Your task to perform on an android device: find photos in the google photos app Image 0: 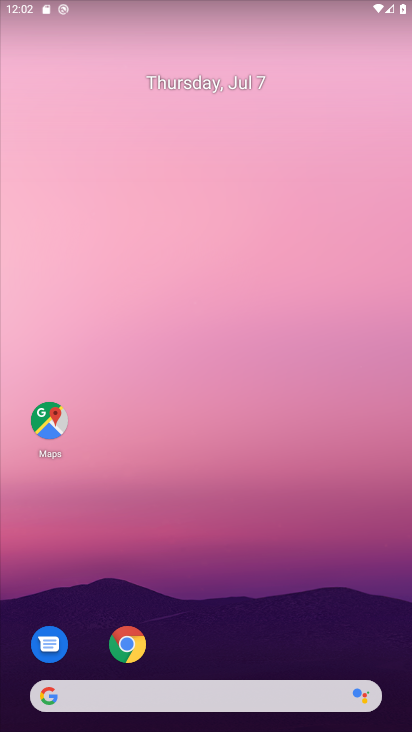
Step 0: drag from (218, 626) to (237, 170)
Your task to perform on an android device: find photos in the google photos app Image 1: 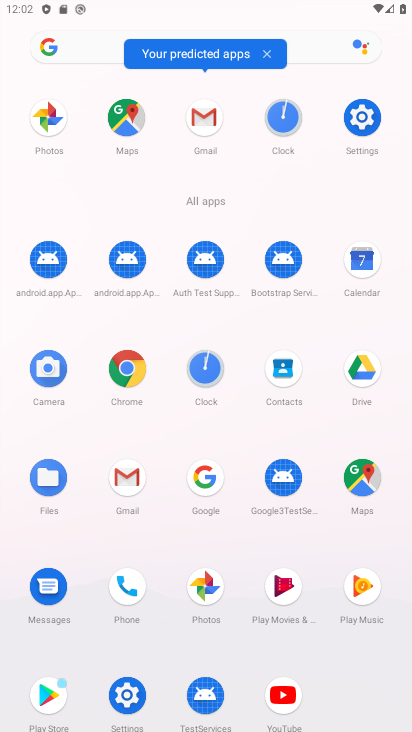
Step 1: drag from (56, 121) to (252, 218)
Your task to perform on an android device: find photos in the google photos app Image 2: 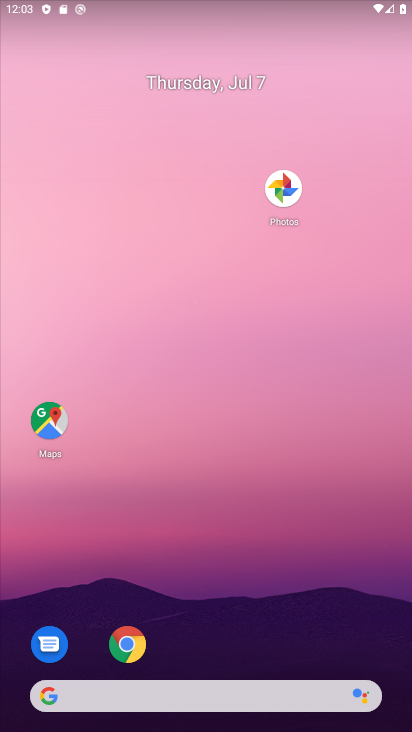
Step 2: click (289, 182)
Your task to perform on an android device: find photos in the google photos app Image 3: 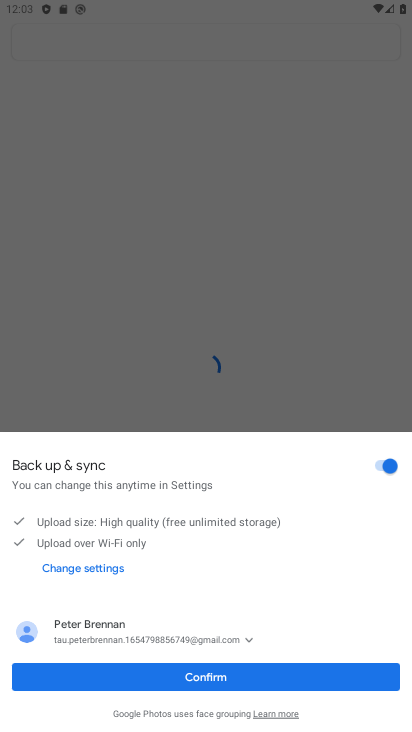
Step 3: click (217, 681)
Your task to perform on an android device: find photos in the google photos app Image 4: 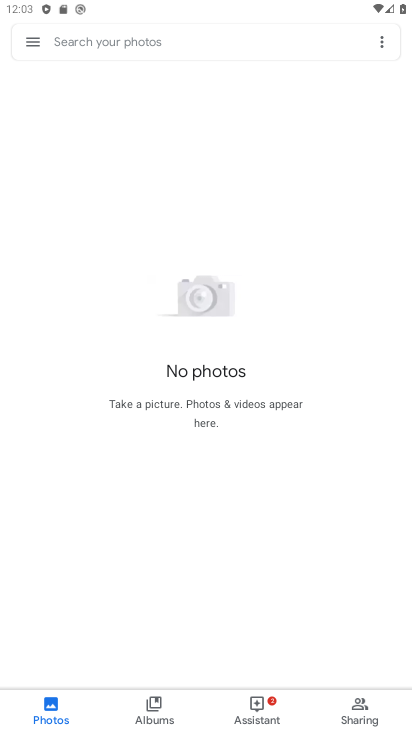
Step 4: task complete